Your task to perform on an android device: Open Google Image 0: 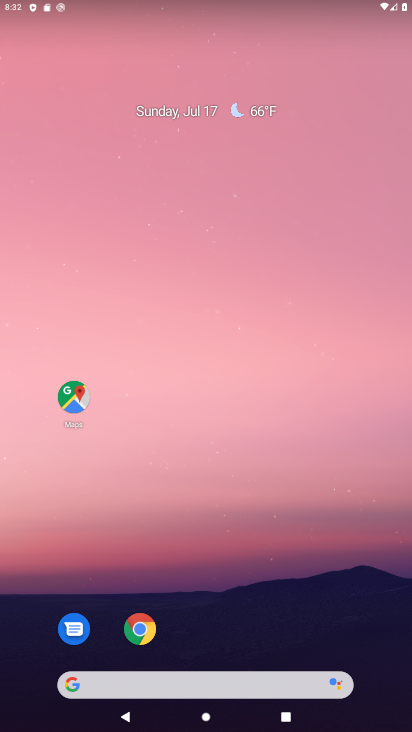
Step 0: press home button
Your task to perform on an android device: Open Google Image 1: 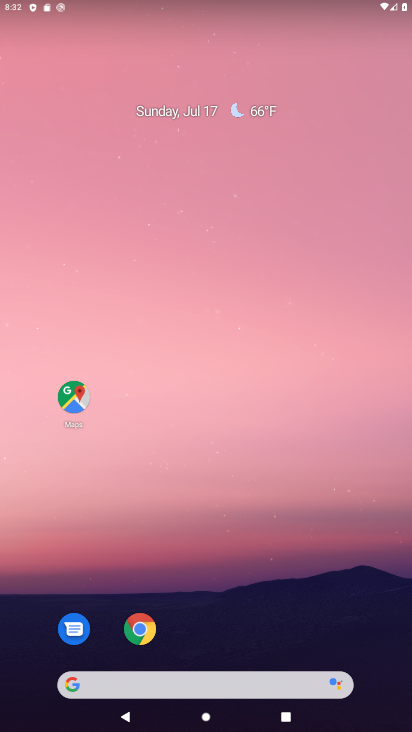
Step 1: drag from (194, 650) to (212, 30)
Your task to perform on an android device: Open Google Image 2: 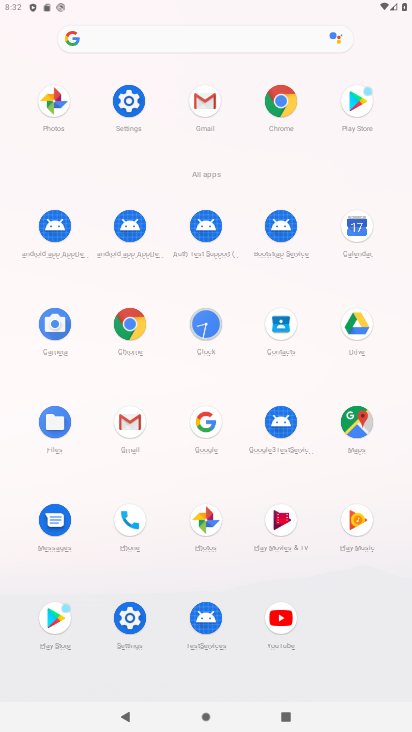
Step 2: click (204, 418)
Your task to perform on an android device: Open Google Image 3: 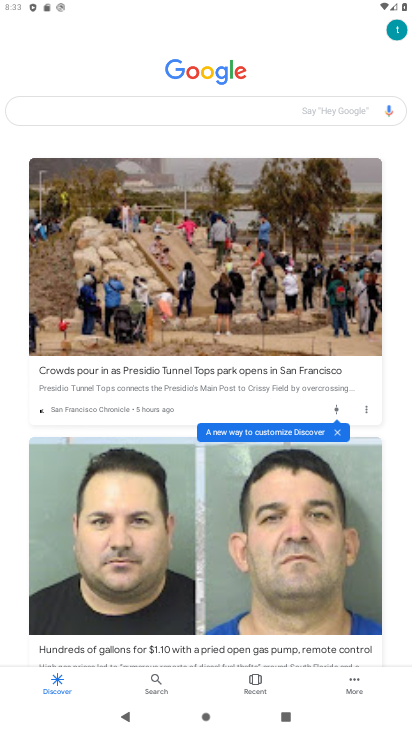
Step 3: task complete